Your task to perform on an android device: turn notification dots off Image 0: 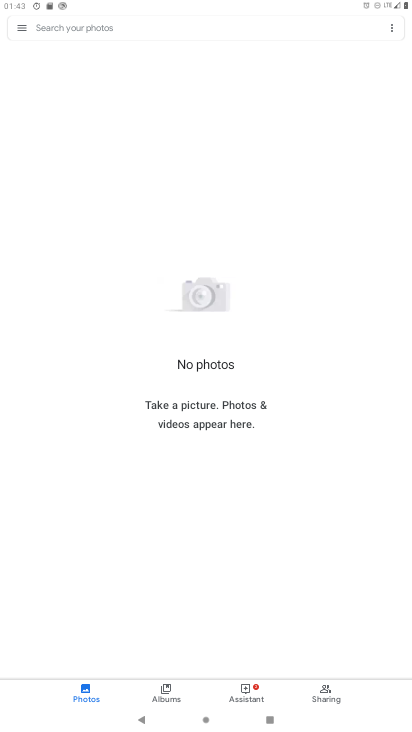
Step 0: press home button
Your task to perform on an android device: turn notification dots off Image 1: 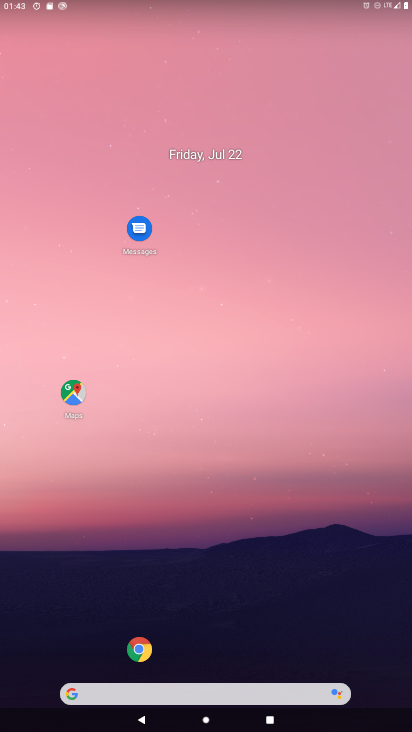
Step 1: drag from (45, 690) to (261, 73)
Your task to perform on an android device: turn notification dots off Image 2: 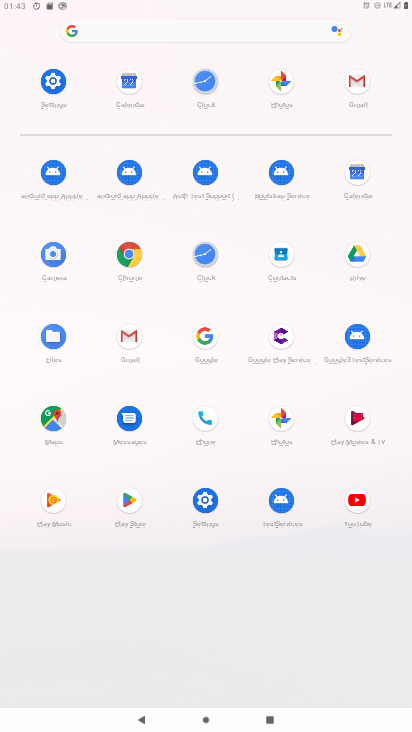
Step 2: click (198, 515)
Your task to perform on an android device: turn notification dots off Image 3: 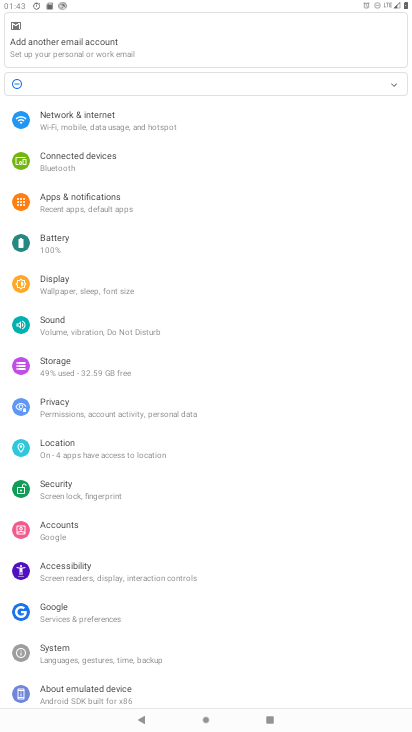
Step 3: click (80, 198)
Your task to perform on an android device: turn notification dots off Image 4: 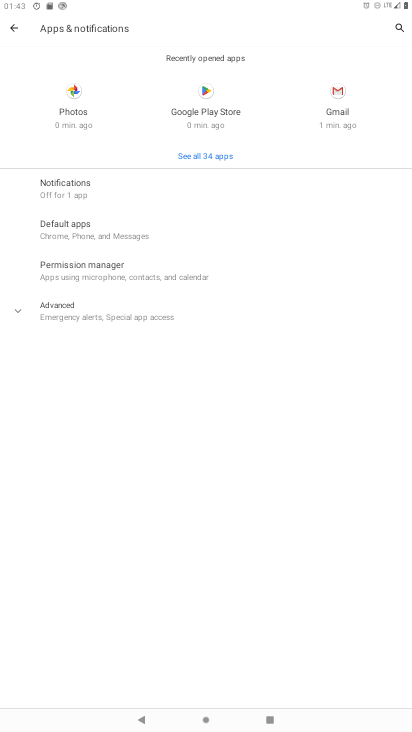
Step 4: click (76, 193)
Your task to perform on an android device: turn notification dots off Image 5: 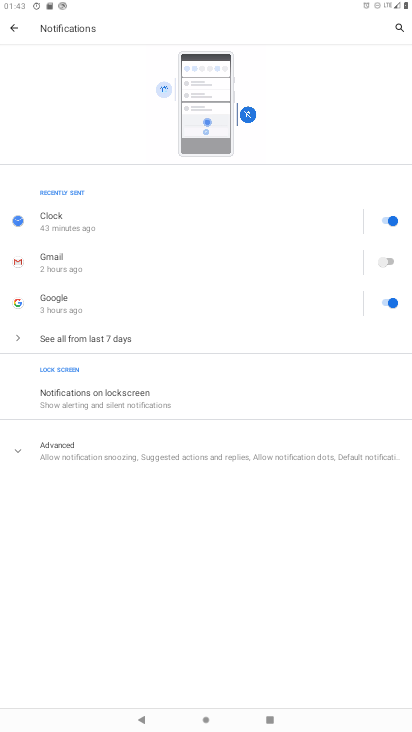
Step 5: click (79, 461)
Your task to perform on an android device: turn notification dots off Image 6: 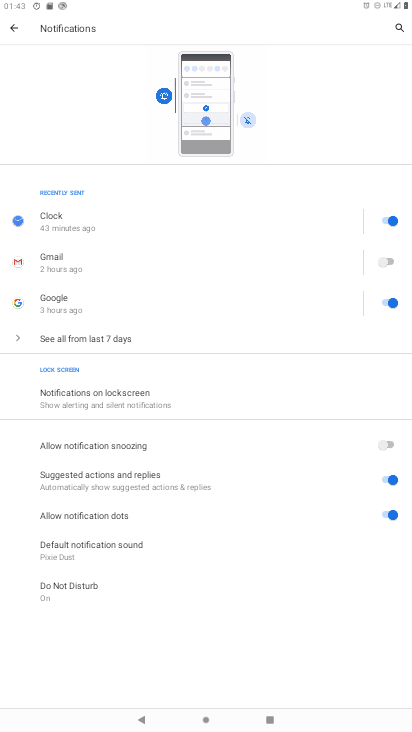
Step 6: click (396, 514)
Your task to perform on an android device: turn notification dots off Image 7: 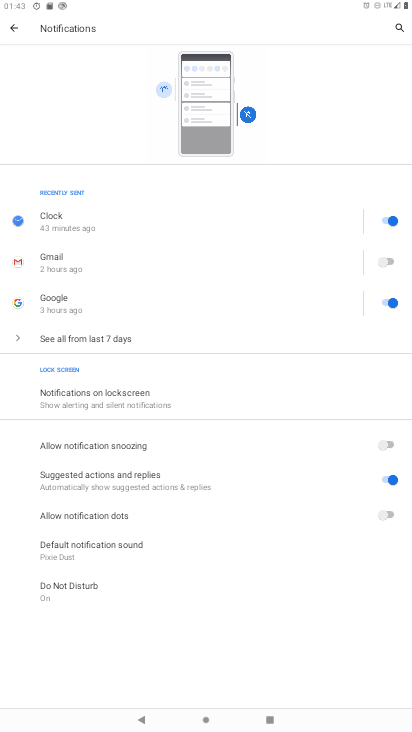
Step 7: task complete